Your task to perform on an android device: Go to sound settings Image 0: 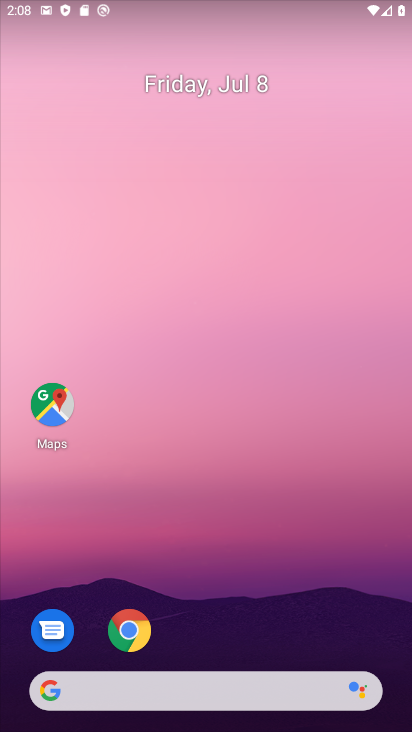
Step 0: click (297, 606)
Your task to perform on an android device: Go to sound settings Image 1: 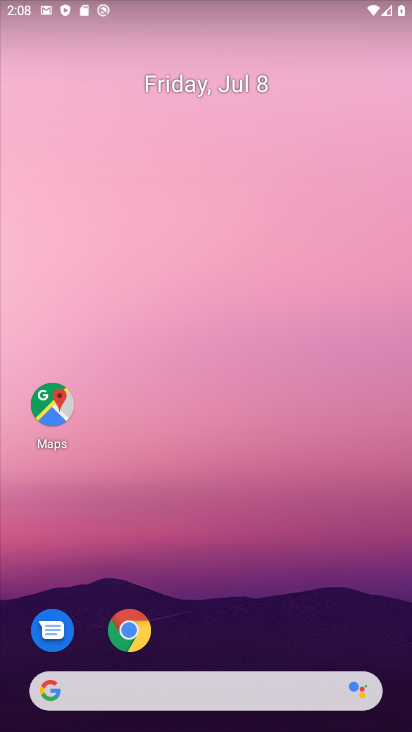
Step 1: click (273, 490)
Your task to perform on an android device: Go to sound settings Image 2: 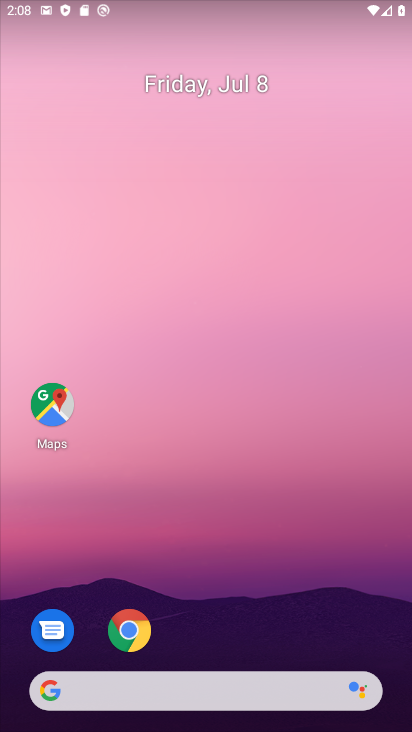
Step 2: click (264, 468)
Your task to perform on an android device: Go to sound settings Image 3: 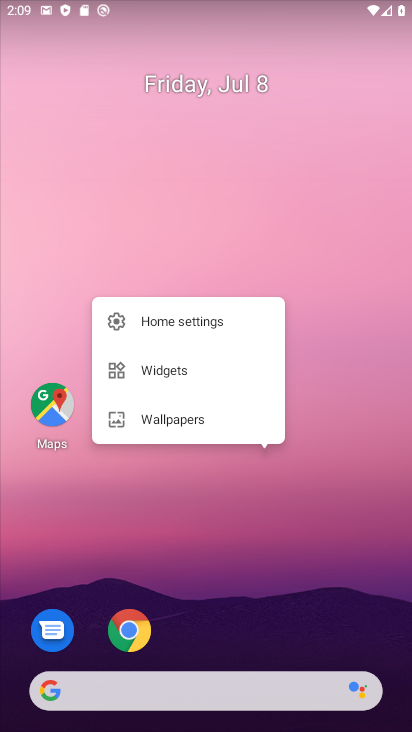
Step 3: click (295, 588)
Your task to perform on an android device: Go to sound settings Image 4: 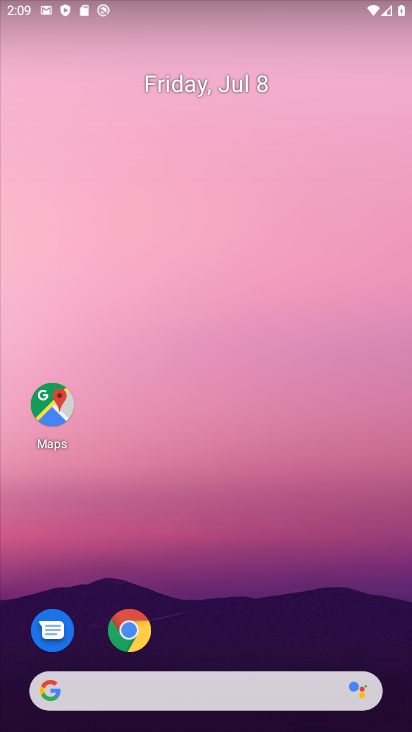
Step 4: drag from (295, 588) to (231, 57)
Your task to perform on an android device: Go to sound settings Image 5: 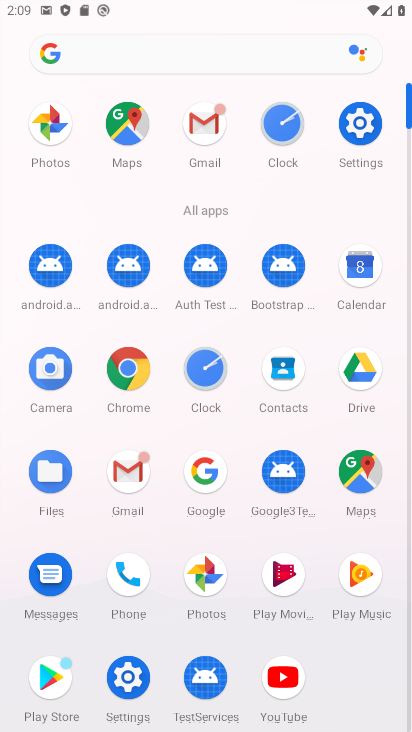
Step 5: click (357, 136)
Your task to perform on an android device: Go to sound settings Image 6: 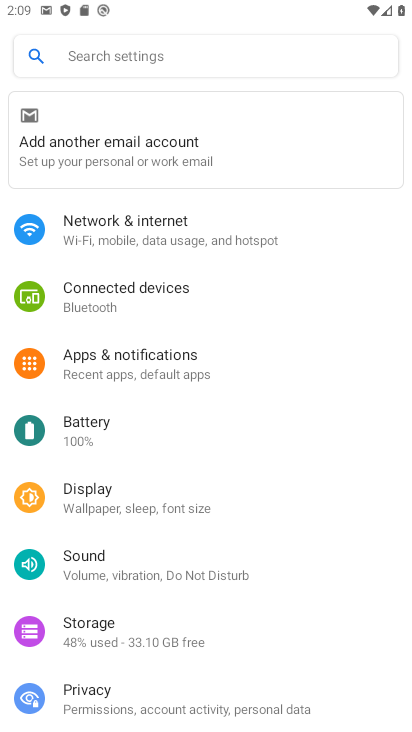
Step 6: click (204, 552)
Your task to perform on an android device: Go to sound settings Image 7: 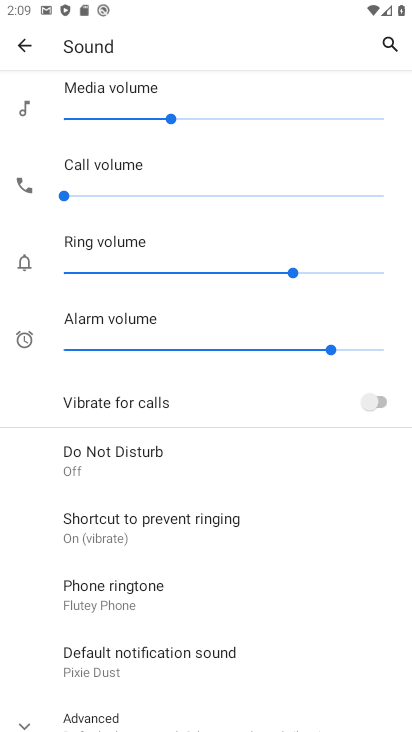
Step 7: task complete